Your task to perform on an android device: toggle notifications settings in the gmail app Image 0: 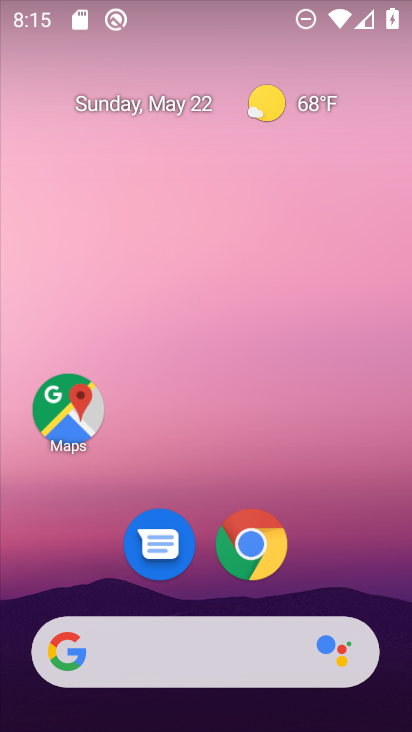
Step 0: click (410, 381)
Your task to perform on an android device: toggle notifications settings in the gmail app Image 1: 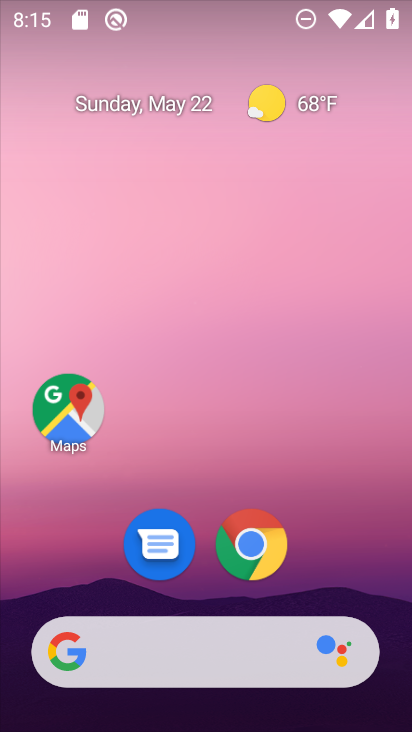
Step 1: drag from (391, 633) to (411, 340)
Your task to perform on an android device: toggle notifications settings in the gmail app Image 2: 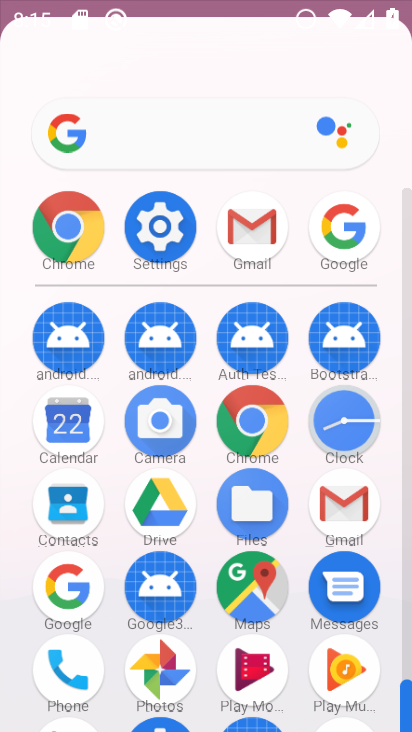
Step 2: click (311, 303)
Your task to perform on an android device: toggle notifications settings in the gmail app Image 3: 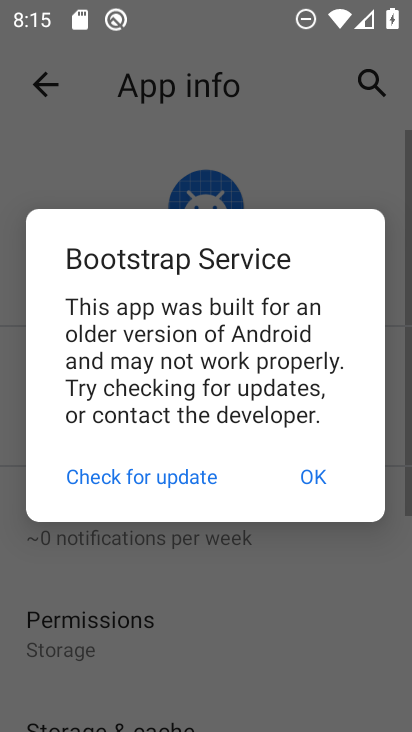
Step 3: press back button
Your task to perform on an android device: toggle notifications settings in the gmail app Image 4: 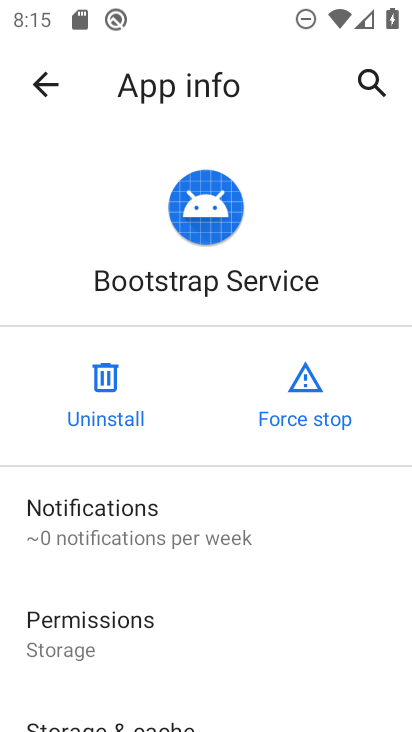
Step 4: click (44, 82)
Your task to perform on an android device: toggle notifications settings in the gmail app Image 5: 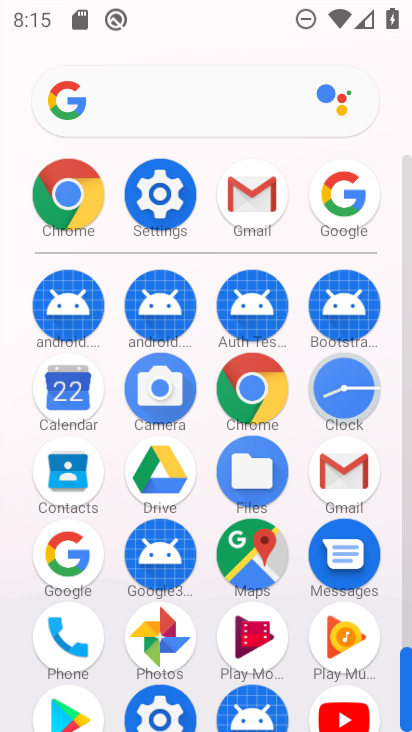
Step 5: click (351, 486)
Your task to perform on an android device: toggle notifications settings in the gmail app Image 6: 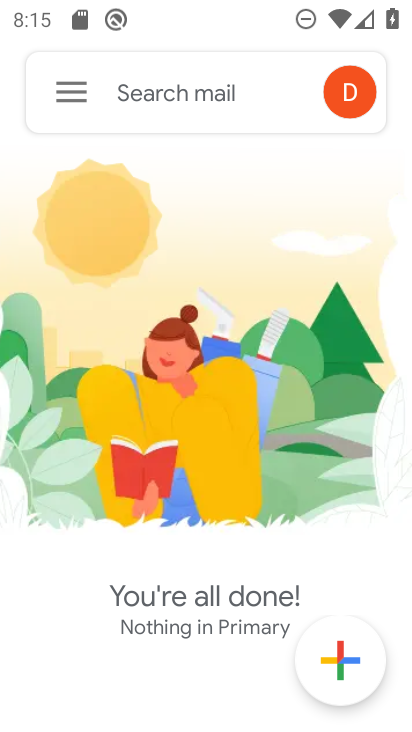
Step 6: click (79, 80)
Your task to perform on an android device: toggle notifications settings in the gmail app Image 7: 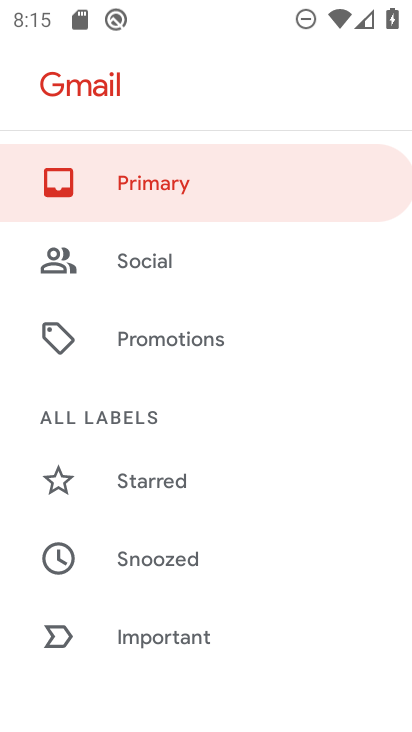
Step 7: drag from (337, 642) to (398, 346)
Your task to perform on an android device: toggle notifications settings in the gmail app Image 8: 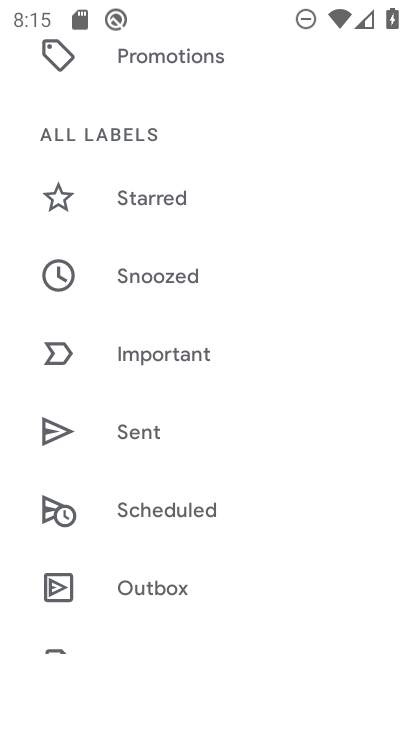
Step 8: drag from (343, 513) to (380, 302)
Your task to perform on an android device: toggle notifications settings in the gmail app Image 9: 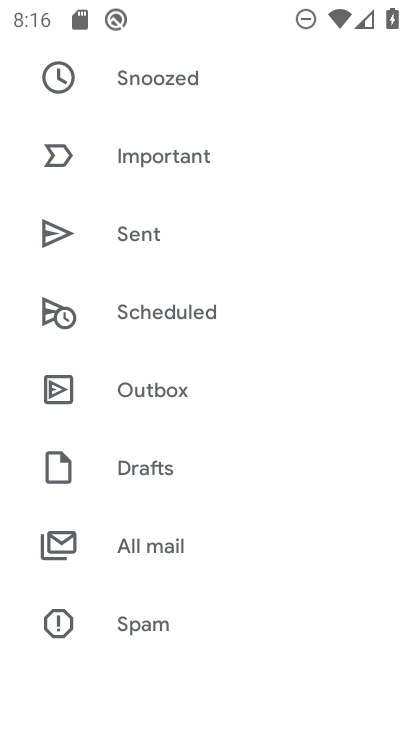
Step 9: drag from (330, 633) to (343, 413)
Your task to perform on an android device: toggle notifications settings in the gmail app Image 10: 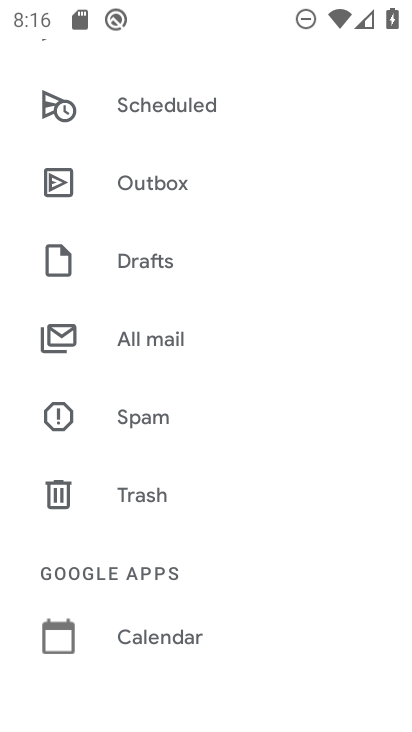
Step 10: drag from (286, 632) to (381, 307)
Your task to perform on an android device: toggle notifications settings in the gmail app Image 11: 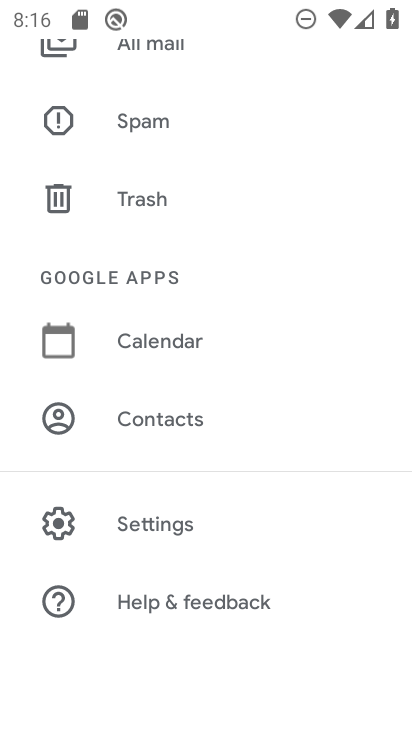
Step 11: click (153, 525)
Your task to perform on an android device: toggle notifications settings in the gmail app Image 12: 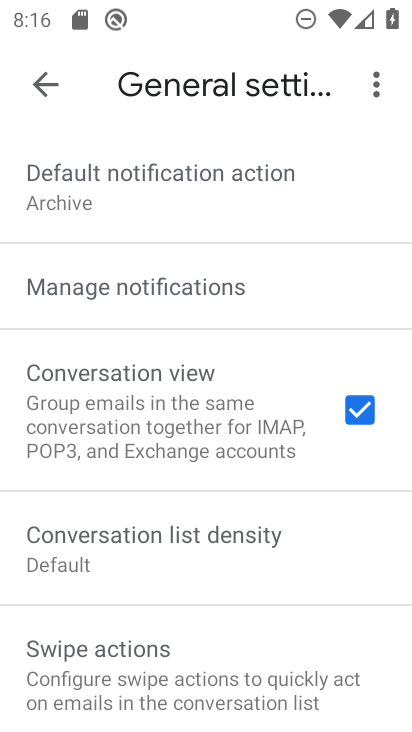
Step 12: click (86, 291)
Your task to perform on an android device: toggle notifications settings in the gmail app Image 13: 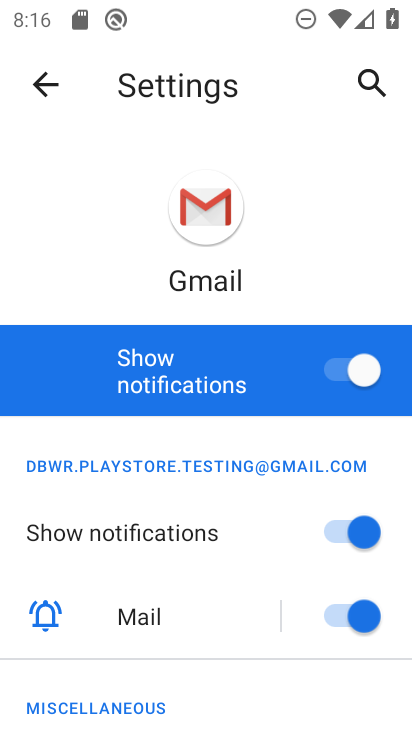
Step 13: click (329, 365)
Your task to perform on an android device: toggle notifications settings in the gmail app Image 14: 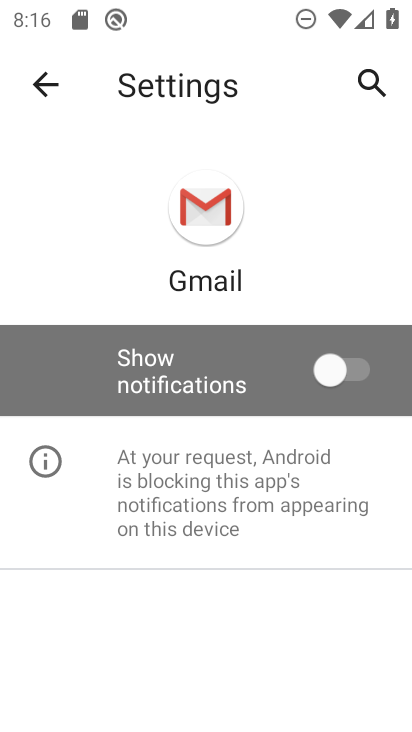
Step 14: task complete